Your task to perform on an android device: Open the stopwatch Image 0: 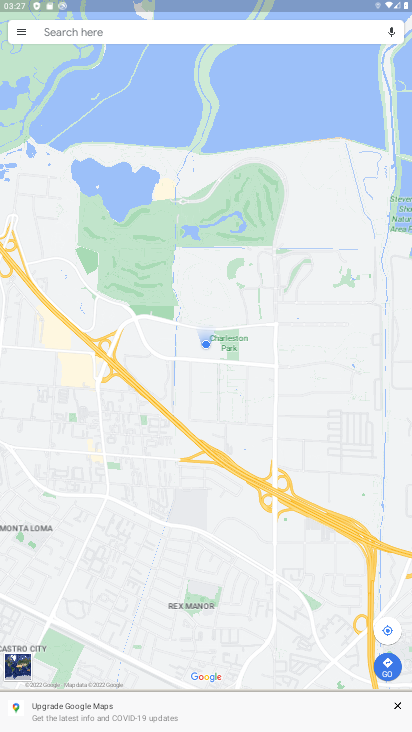
Step 0: press home button
Your task to perform on an android device: Open the stopwatch Image 1: 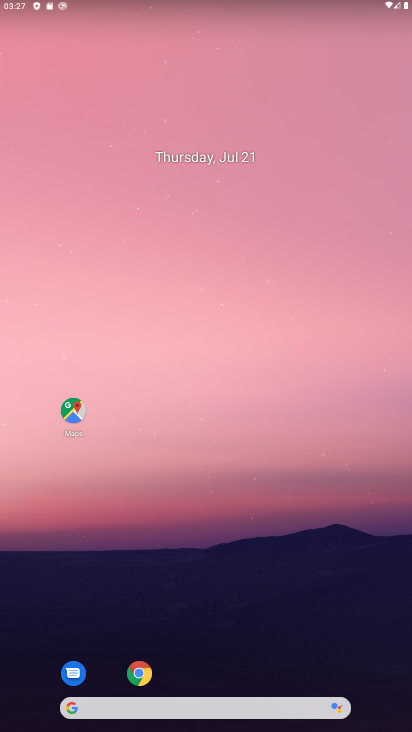
Step 1: drag from (256, 603) to (259, 129)
Your task to perform on an android device: Open the stopwatch Image 2: 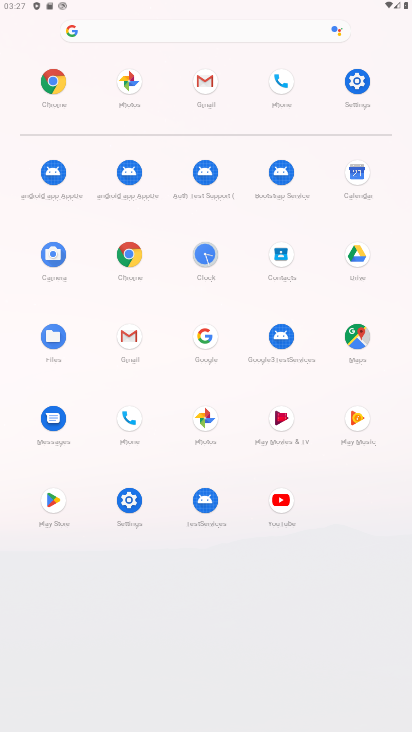
Step 2: click (203, 249)
Your task to perform on an android device: Open the stopwatch Image 3: 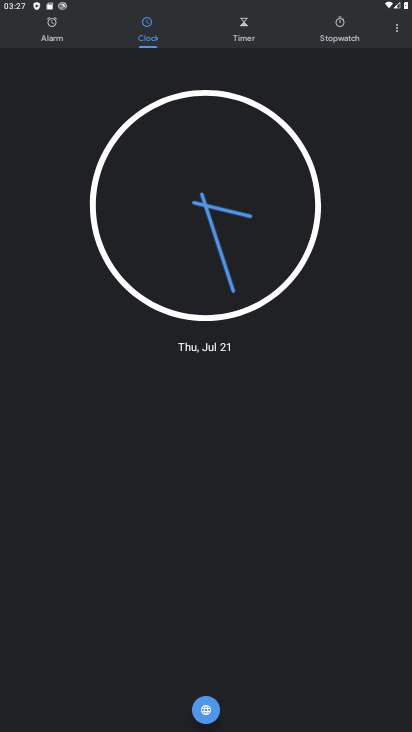
Step 3: click (326, 32)
Your task to perform on an android device: Open the stopwatch Image 4: 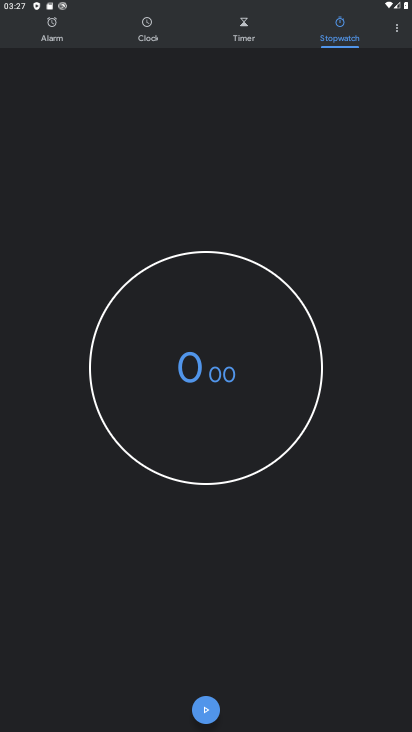
Step 4: task complete